Your task to perform on an android device: What's on the menu at Red Lobster? Image 0: 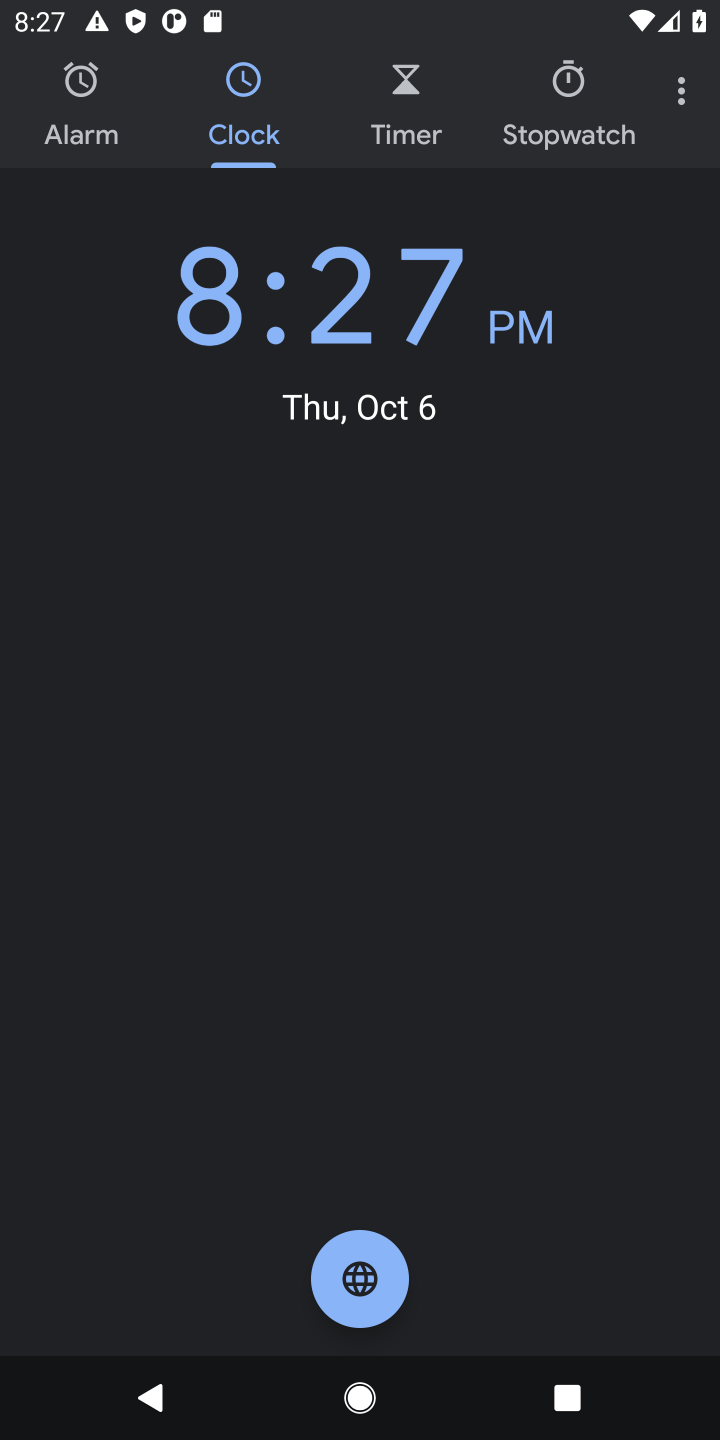
Step 0: press home button
Your task to perform on an android device: What's on the menu at Red Lobster? Image 1: 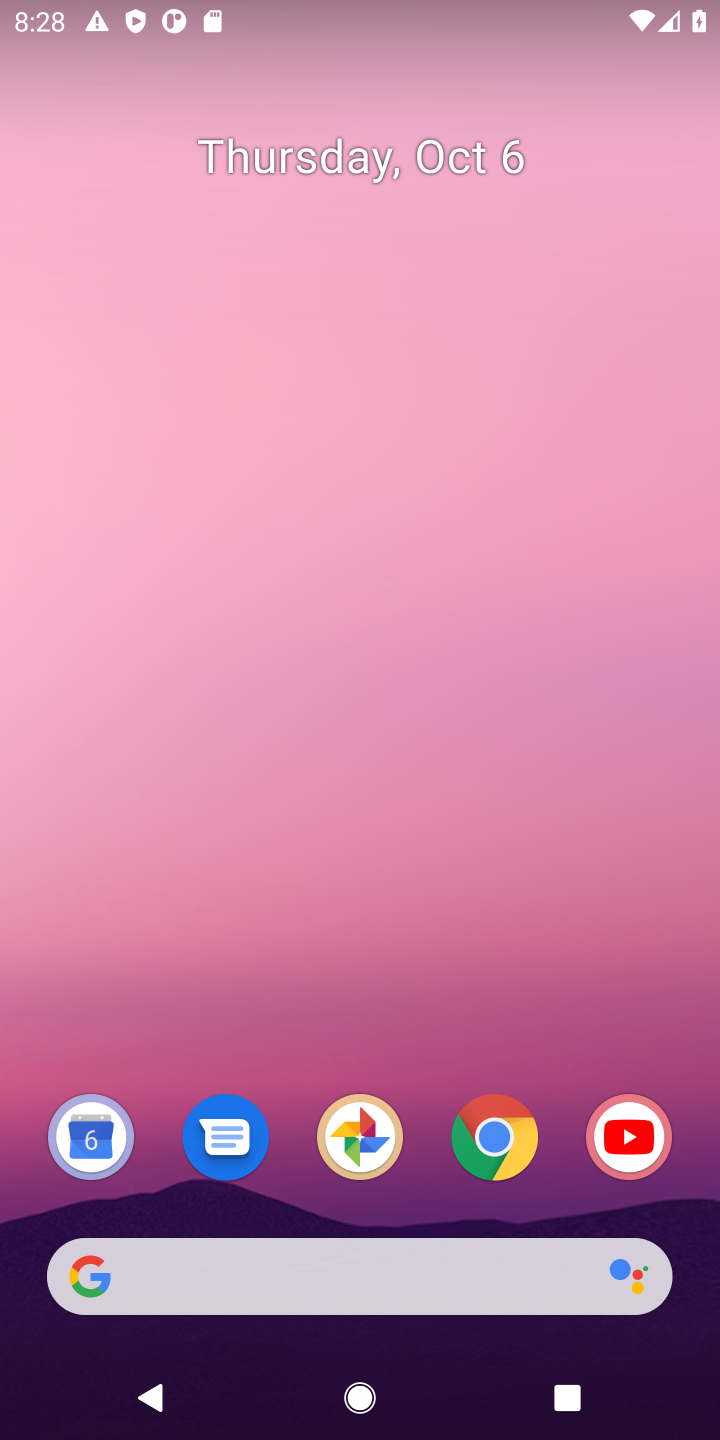
Step 1: click (495, 1136)
Your task to perform on an android device: What's on the menu at Red Lobster? Image 2: 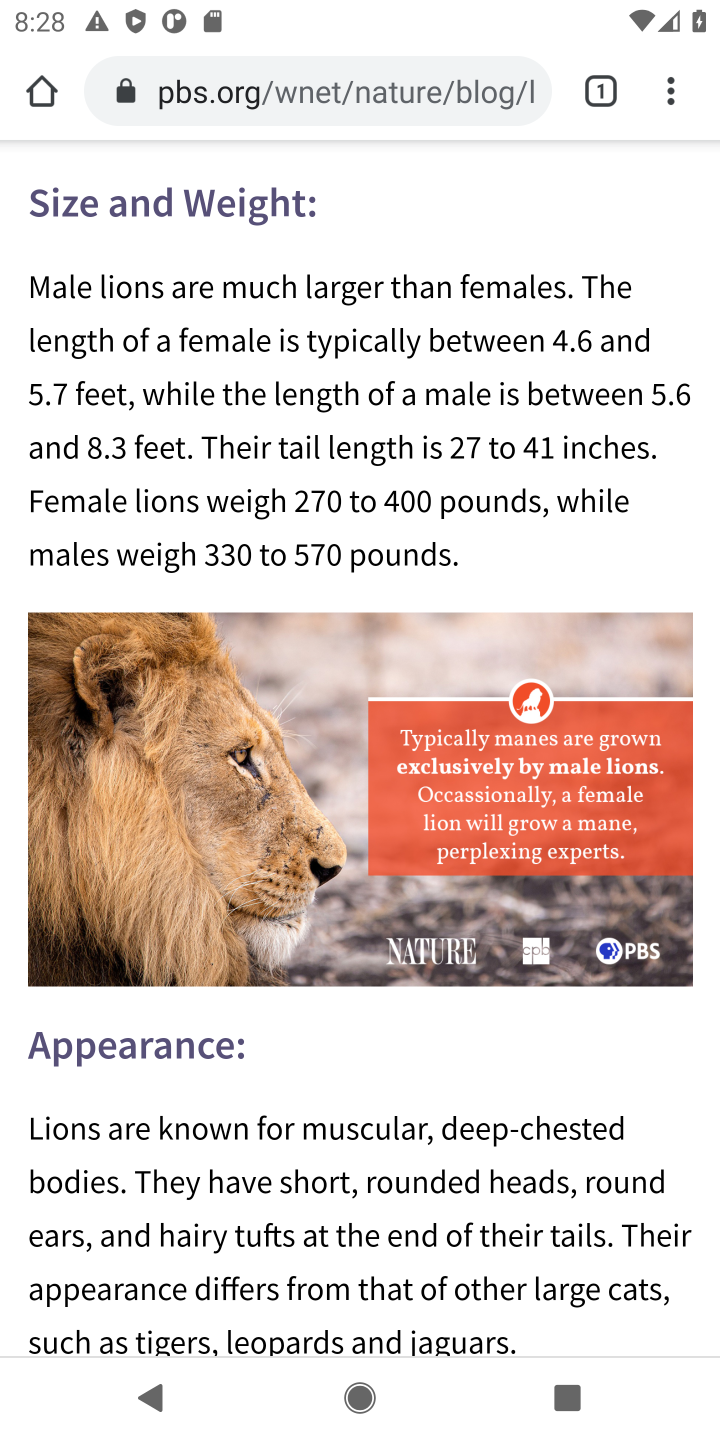
Step 2: click (524, 88)
Your task to perform on an android device: What's on the menu at Red Lobster? Image 3: 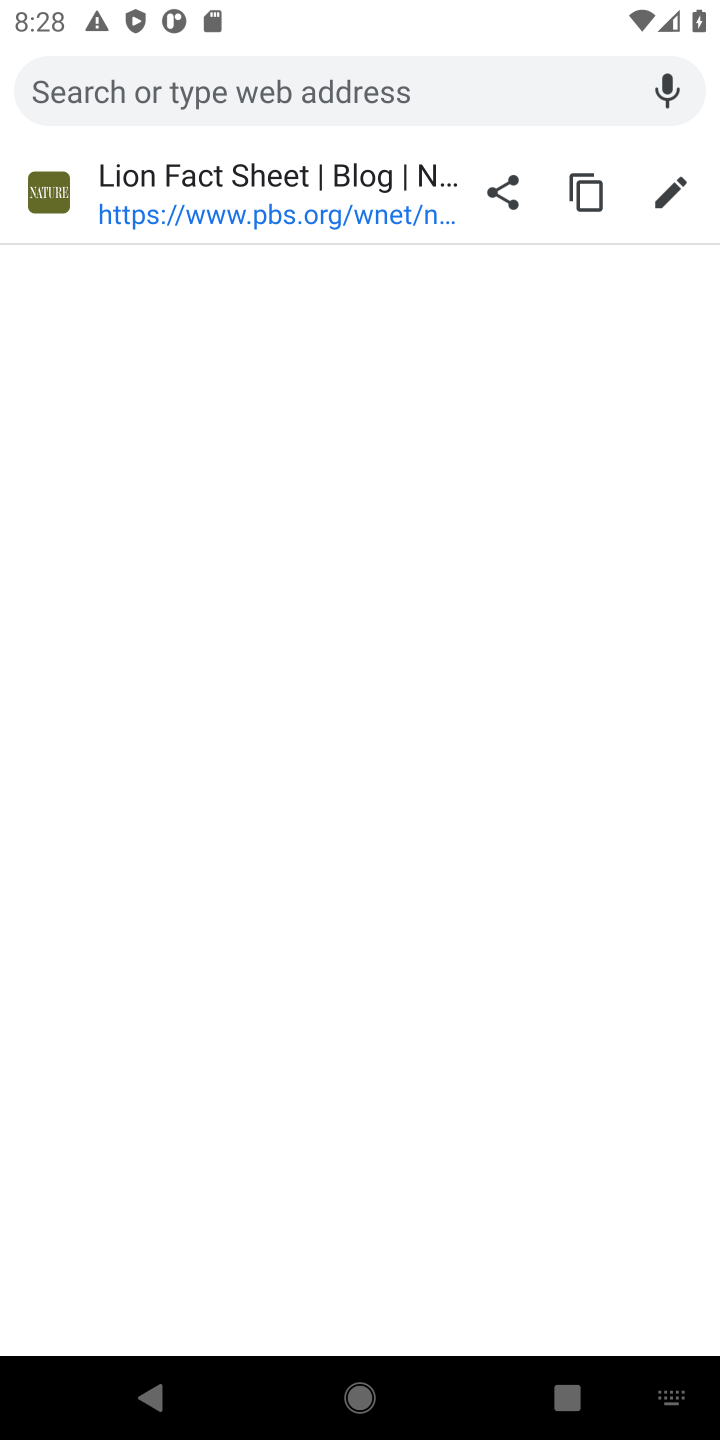
Step 3: type "menu at Red Lobster"
Your task to perform on an android device: What's on the menu at Red Lobster? Image 4: 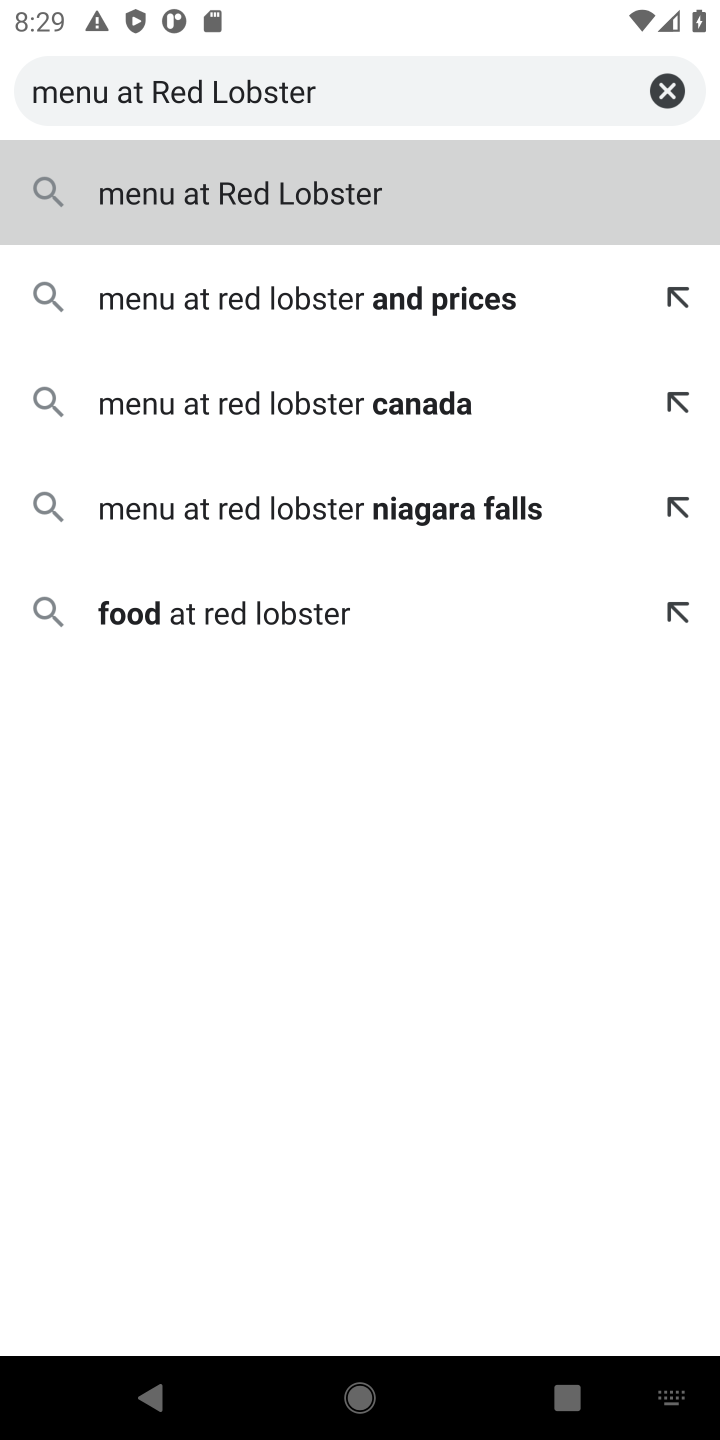
Step 4: click (285, 189)
Your task to perform on an android device: What's on the menu at Red Lobster? Image 5: 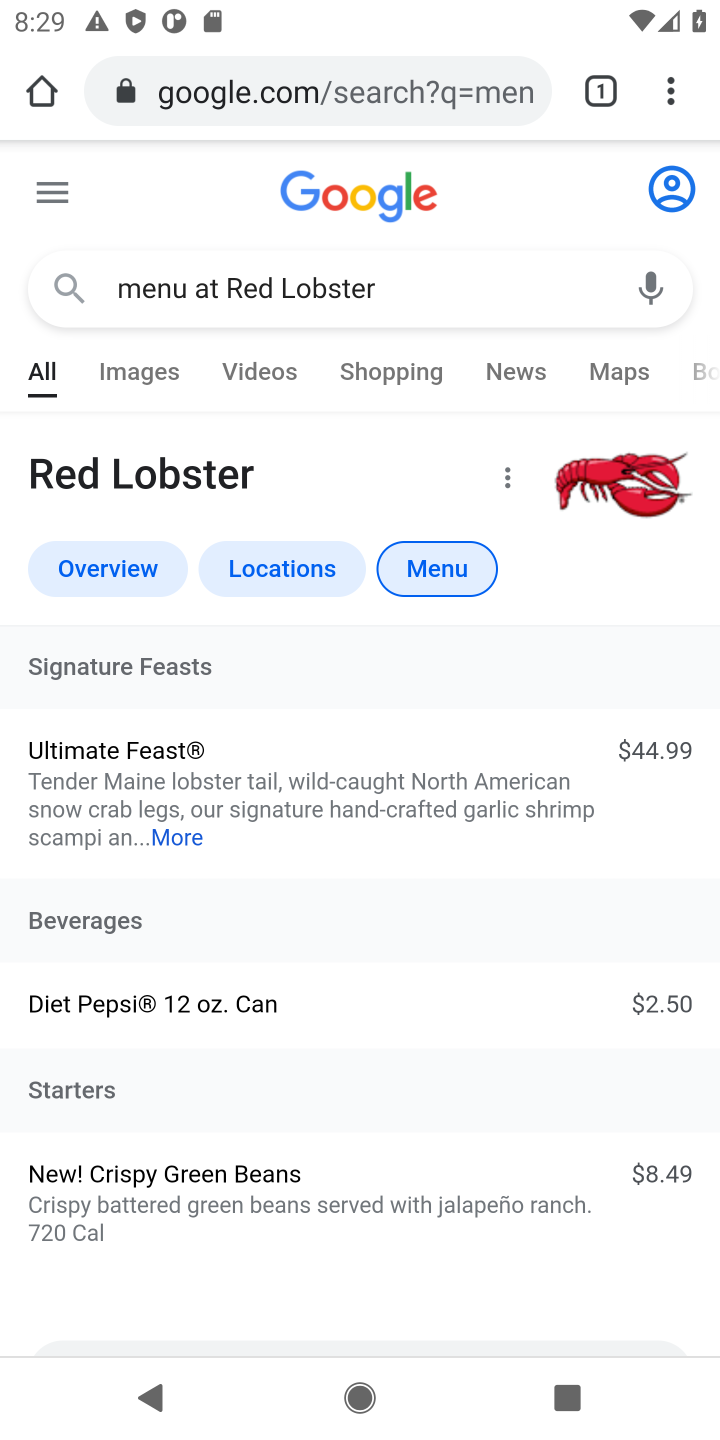
Step 5: task complete